Your task to perform on an android device: Go to display settings Image 0: 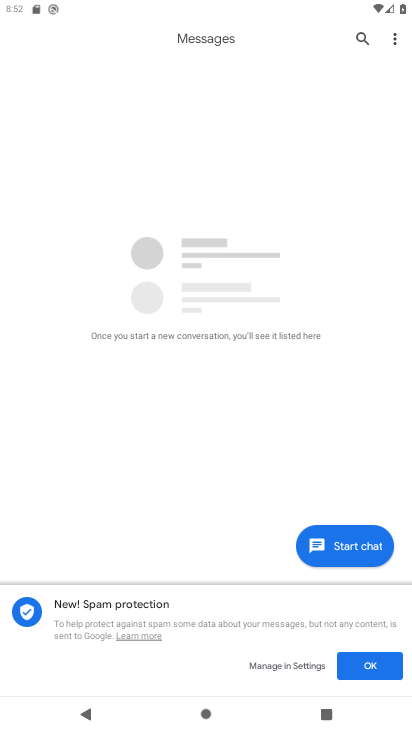
Step 0: press back button
Your task to perform on an android device: Go to display settings Image 1: 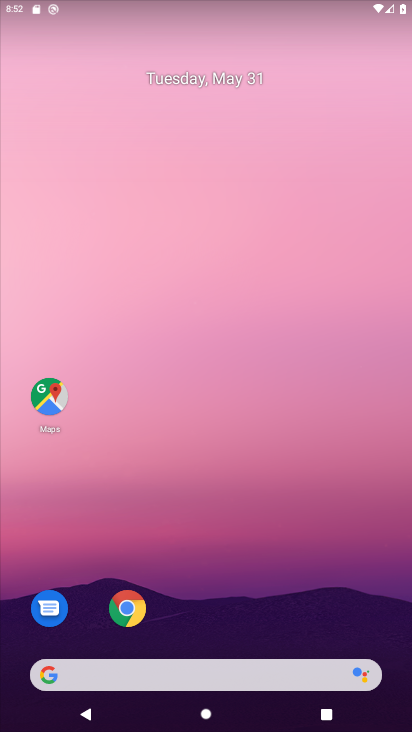
Step 1: drag from (239, 600) to (202, 49)
Your task to perform on an android device: Go to display settings Image 2: 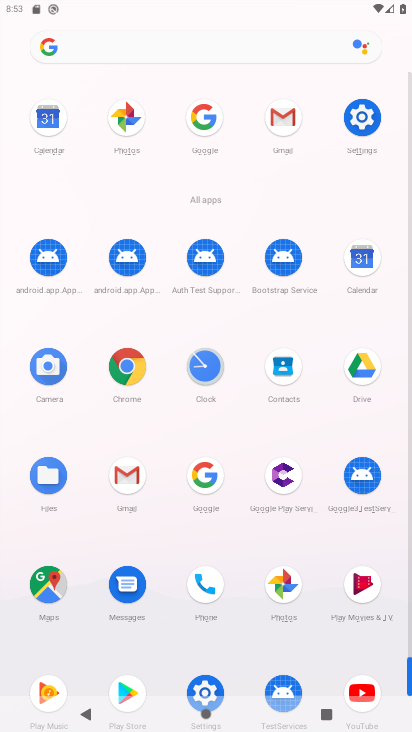
Step 2: click (362, 118)
Your task to perform on an android device: Go to display settings Image 3: 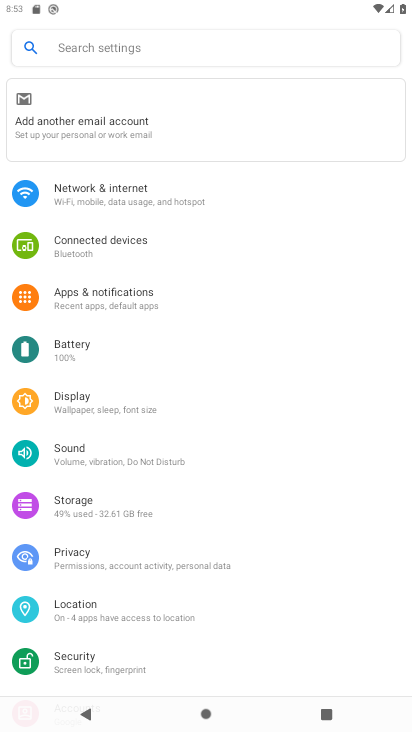
Step 3: click (103, 409)
Your task to perform on an android device: Go to display settings Image 4: 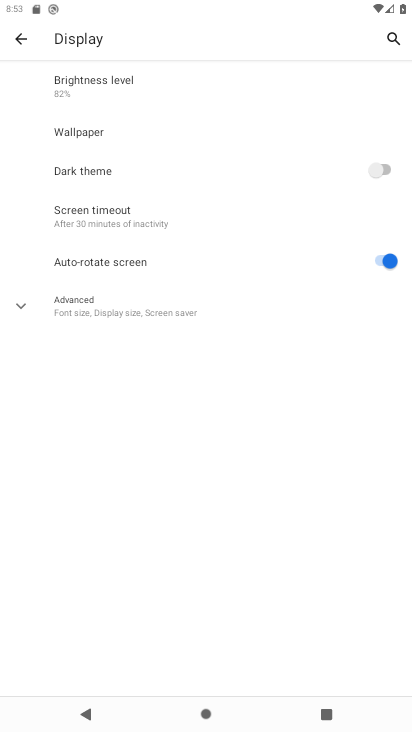
Step 4: task complete